Your task to perform on an android device: Go to location settings Image 0: 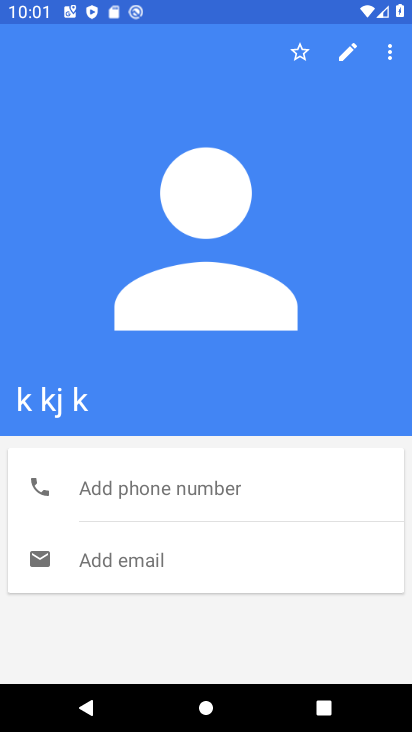
Step 0: press home button
Your task to perform on an android device: Go to location settings Image 1: 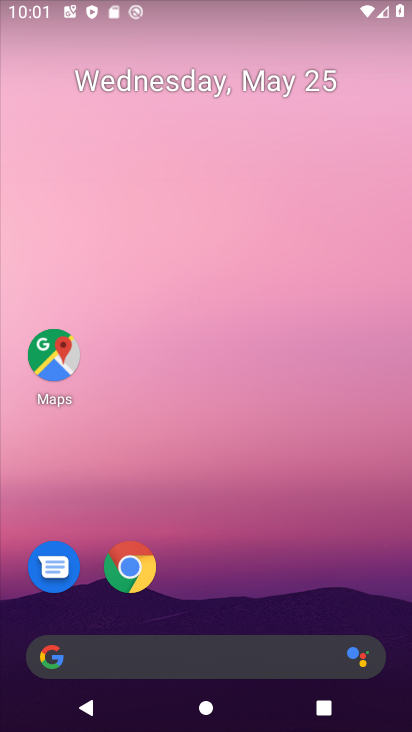
Step 1: drag from (277, 619) to (236, 147)
Your task to perform on an android device: Go to location settings Image 2: 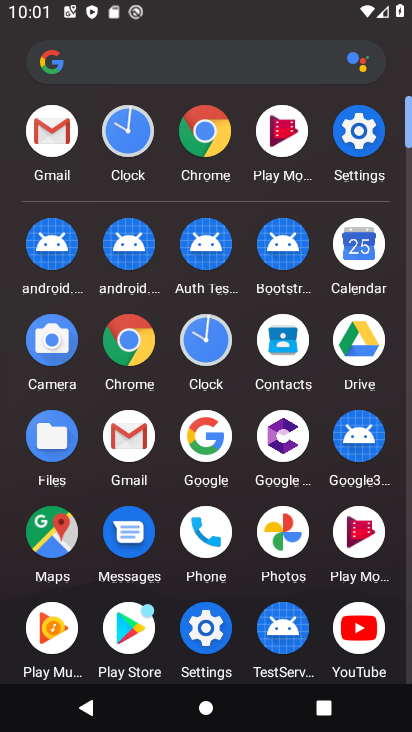
Step 2: click (361, 165)
Your task to perform on an android device: Go to location settings Image 3: 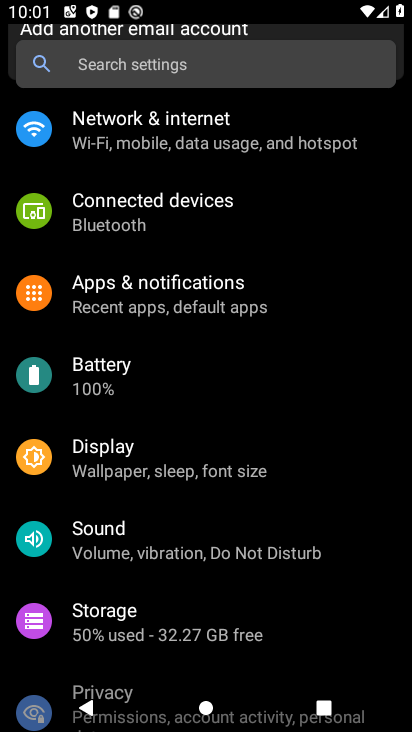
Step 3: drag from (247, 516) to (251, 264)
Your task to perform on an android device: Go to location settings Image 4: 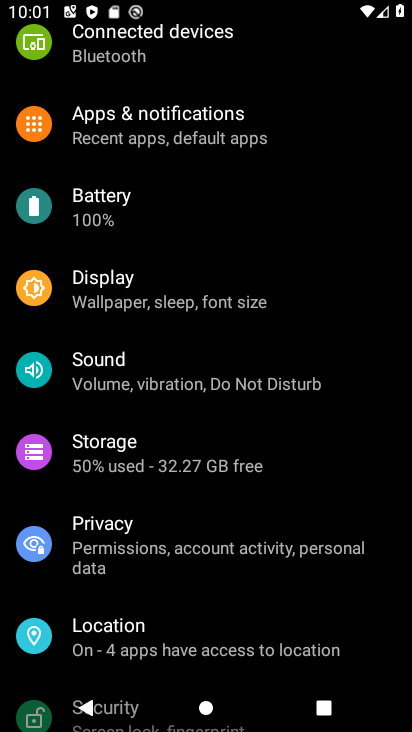
Step 4: click (160, 614)
Your task to perform on an android device: Go to location settings Image 5: 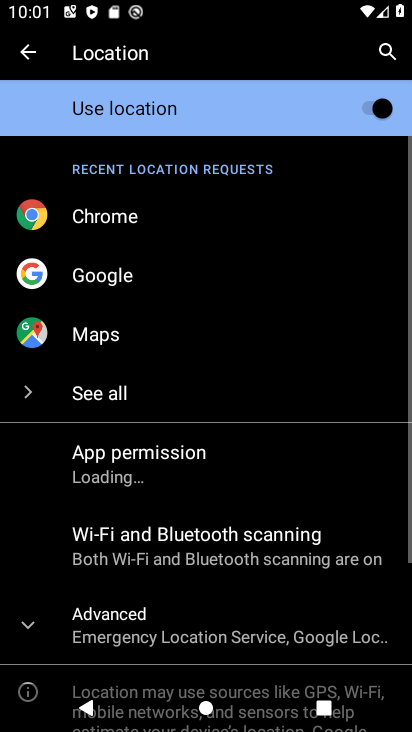
Step 5: task complete